Your task to perform on an android device: Open Android settings Image 0: 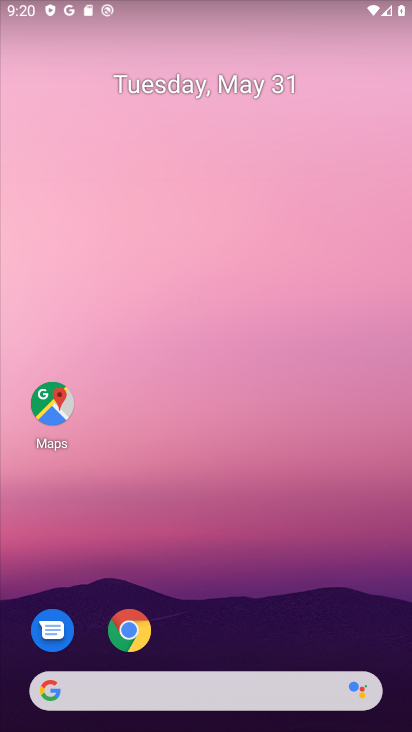
Step 0: drag from (132, 723) to (201, 37)
Your task to perform on an android device: Open Android settings Image 1: 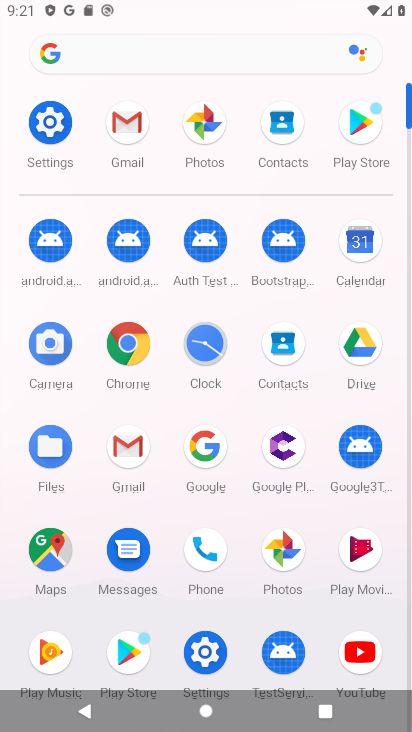
Step 1: click (42, 122)
Your task to perform on an android device: Open Android settings Image 2: 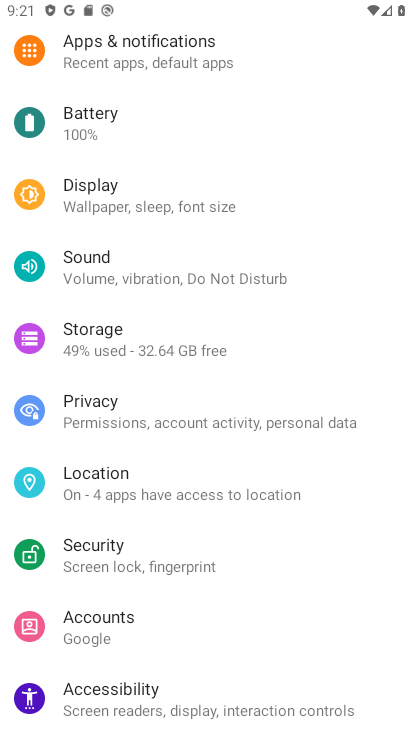
Step 2: task complete